Your task to perform on an android device: When is my next meeting? Image 0: 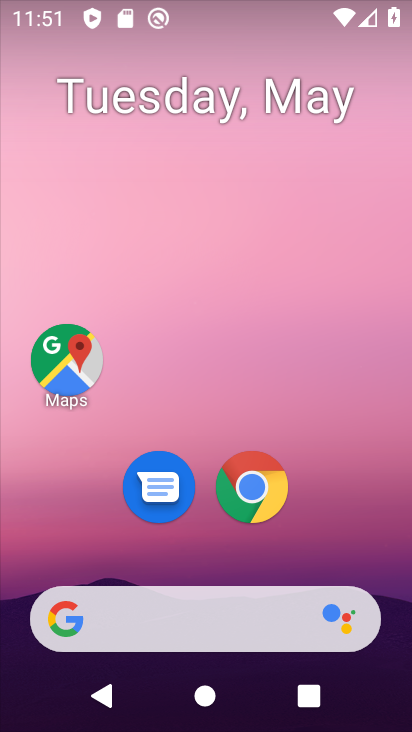
Step 0: drag from (345, 466) to (310, 70)
Your task to perform on an android device: When is my next meeting? Image 1: 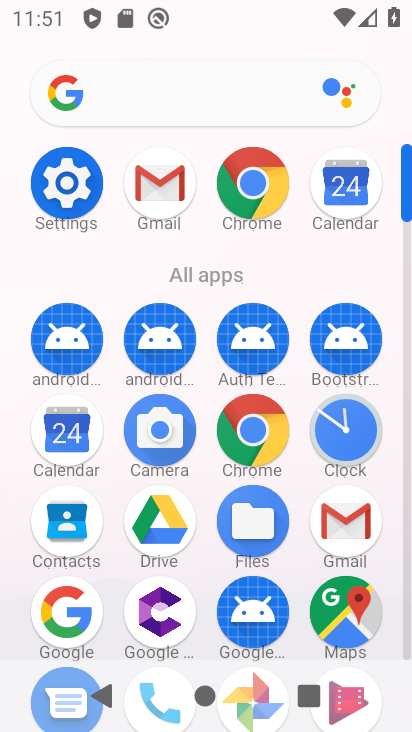
Step 1: click (347, 182)
Your task to perform on an android device: When is my next meeting? Image 2: 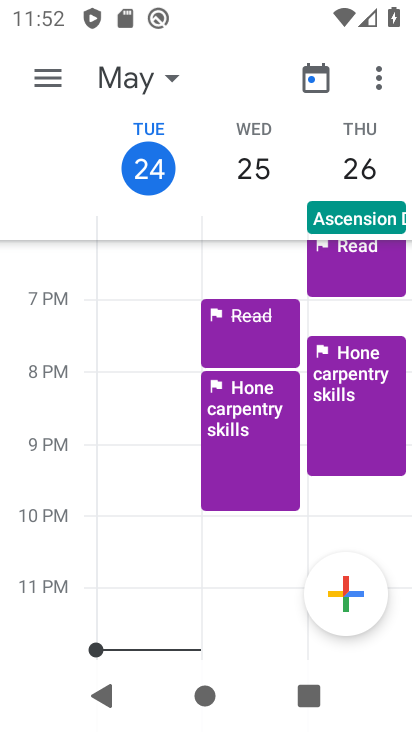
Step 2: click (52, 72)
Your task to perform on an android device: When is my next meeting? Image 3: 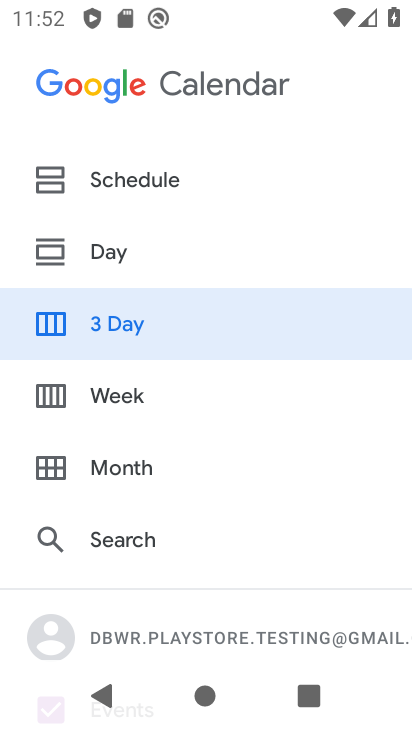
Step 3: click (215, 171)
Your task to perform on an android device: When is my next meeting? Image 4: 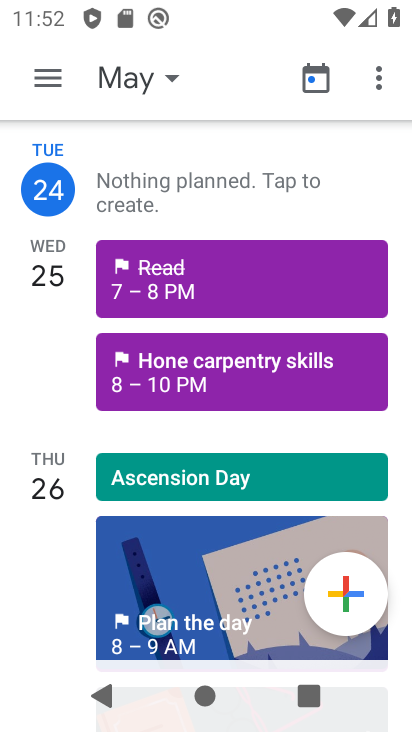
Step 4: task complete